Your task to perform on an android device: Open the phone app and click the voicemail tab. Image 0: 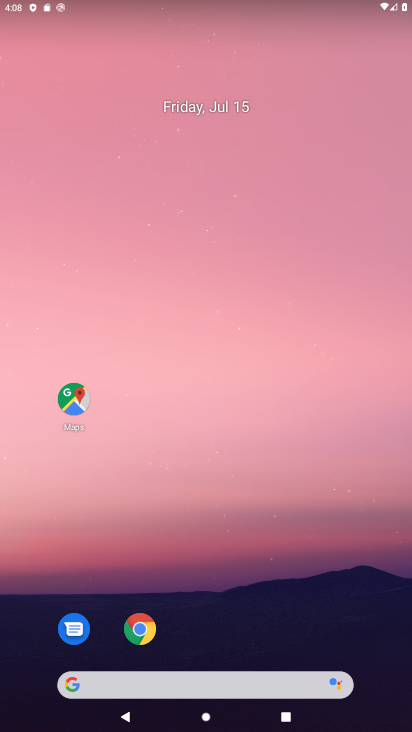
Step 0: drag from (233, 608) to (240, 150)
Your task to perform on an android device: Open the phone app and click the voicemail tab. Image 1: 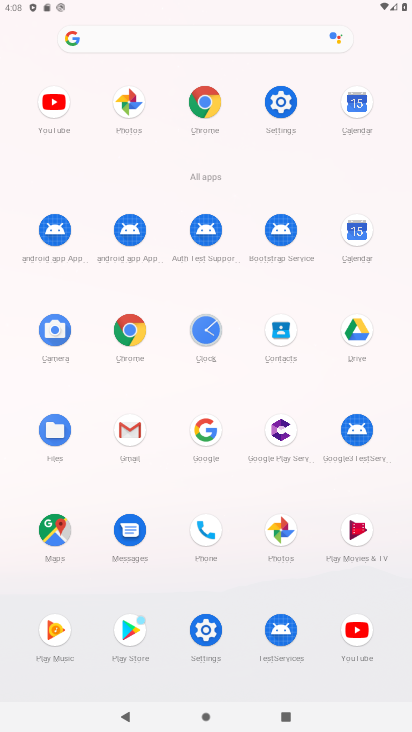
Step 1: click (191, 533)
Your task to perform on an android device: Open the phone app and click the voicemail tab. Image 2: 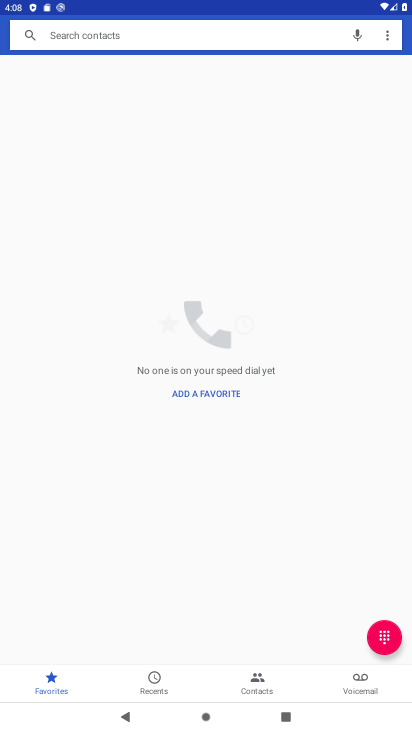
Step 2: click (356, 683)
Your task to perform on an android device: Open the phone app and click the voicemail tab. Image 3: 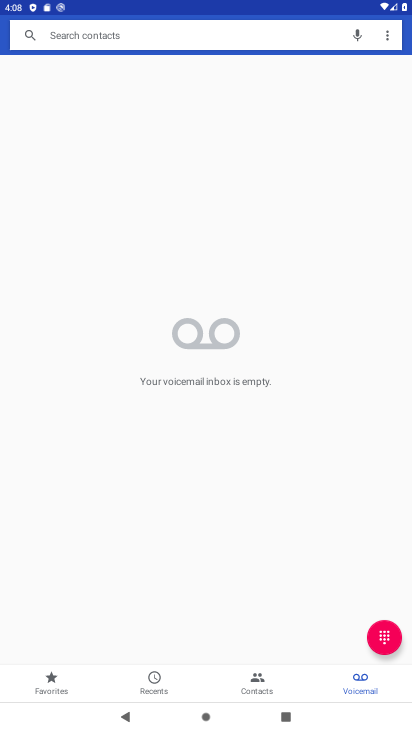
Step 3: task complete